Your task to perform on an android device: Show me productivity apps on the Play Store Image 0: 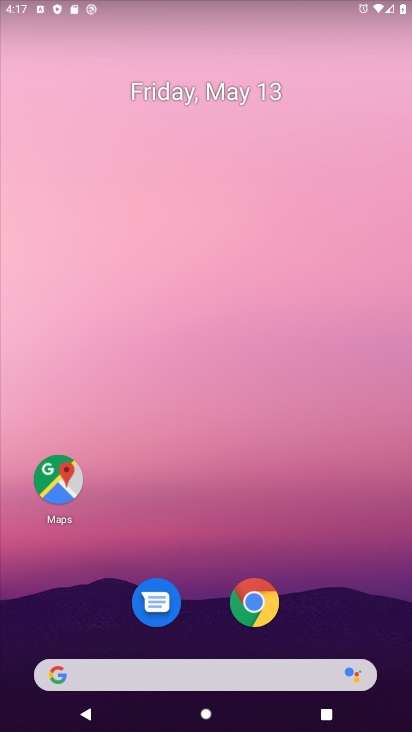
Step 0: drag from (222, 662) to (243, 203)
Your task to perform on an android device: Show me productivity apps on the Play Store Image 1: 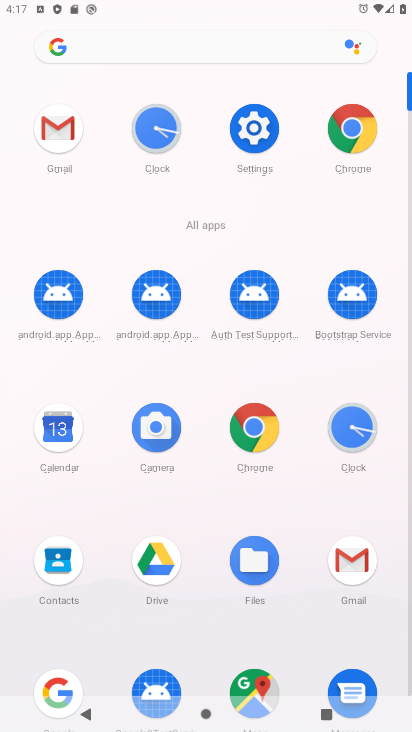
Step 1: drag from (198, 639) to (196, 262)
Your task to perform on an android device: Show me productivity apps on the Play Store Image 2: 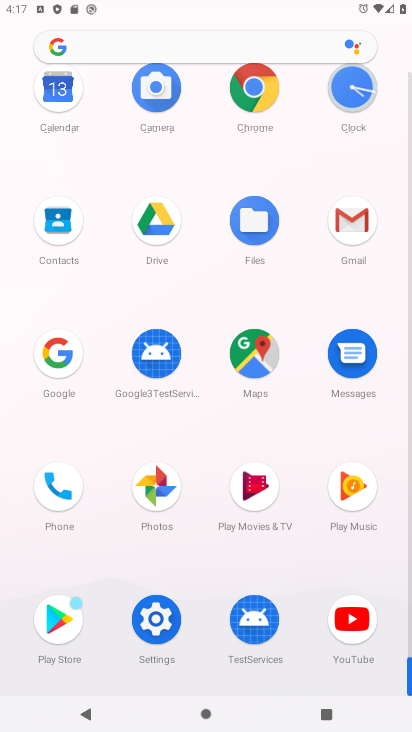
Step 2: click (57, 627)
Your task to perform on an android device: Show me productivity apps on the Play Store Image 3: 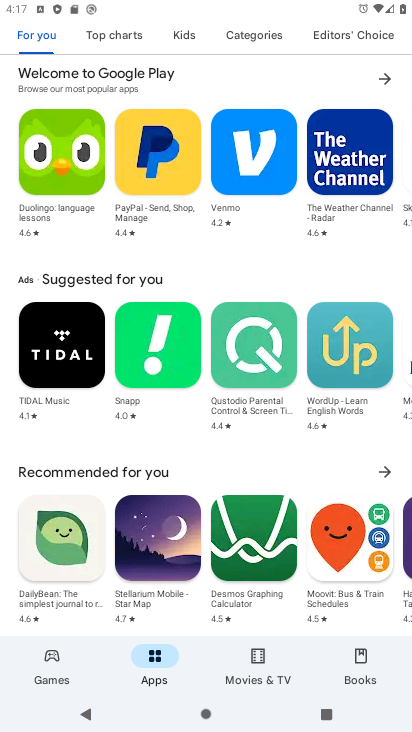
Step 3: task complete